Your task to perform on an android device: Search for flights from NYC to Sydney Image 0: 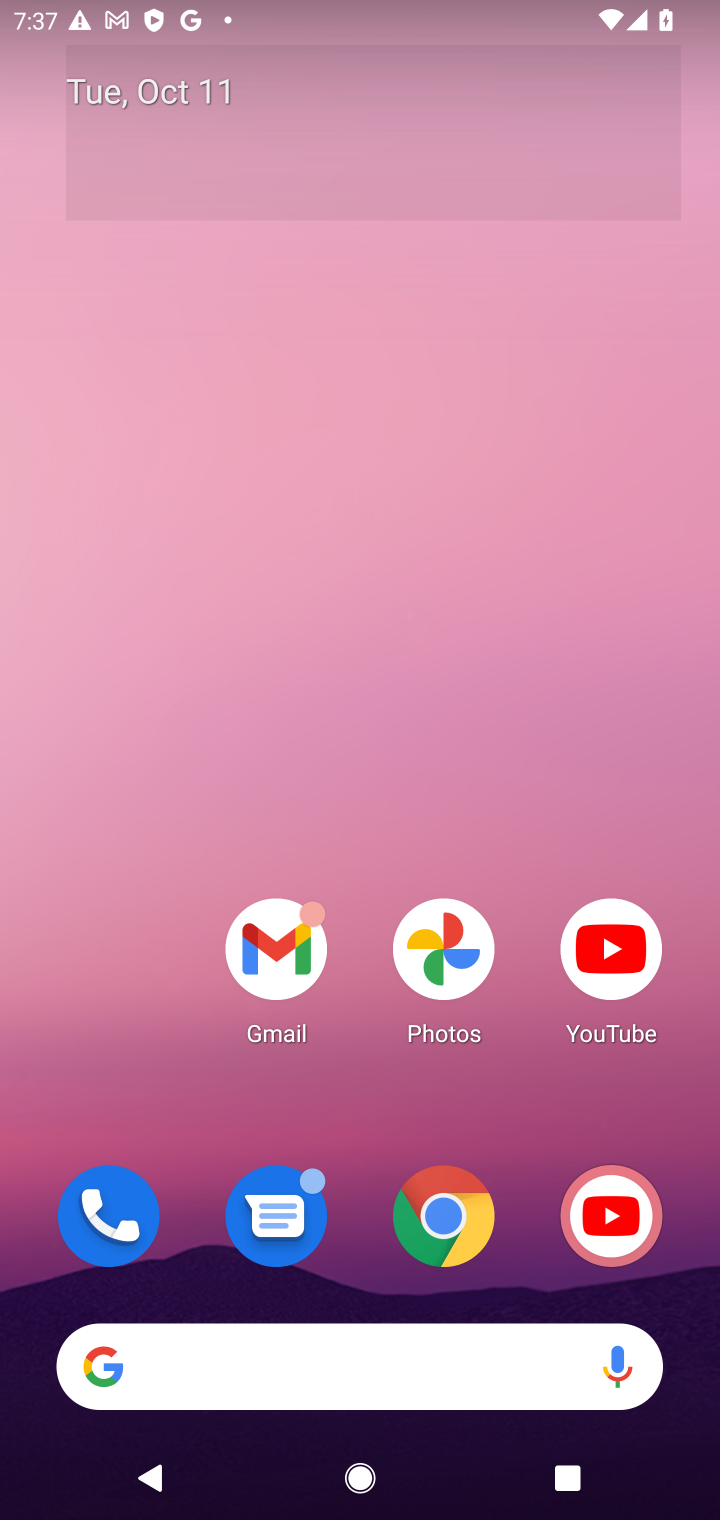
Step 0: click (439, 1239)
Your task to perform on an android device: Search for flights from NYC to Sydney Image 1: 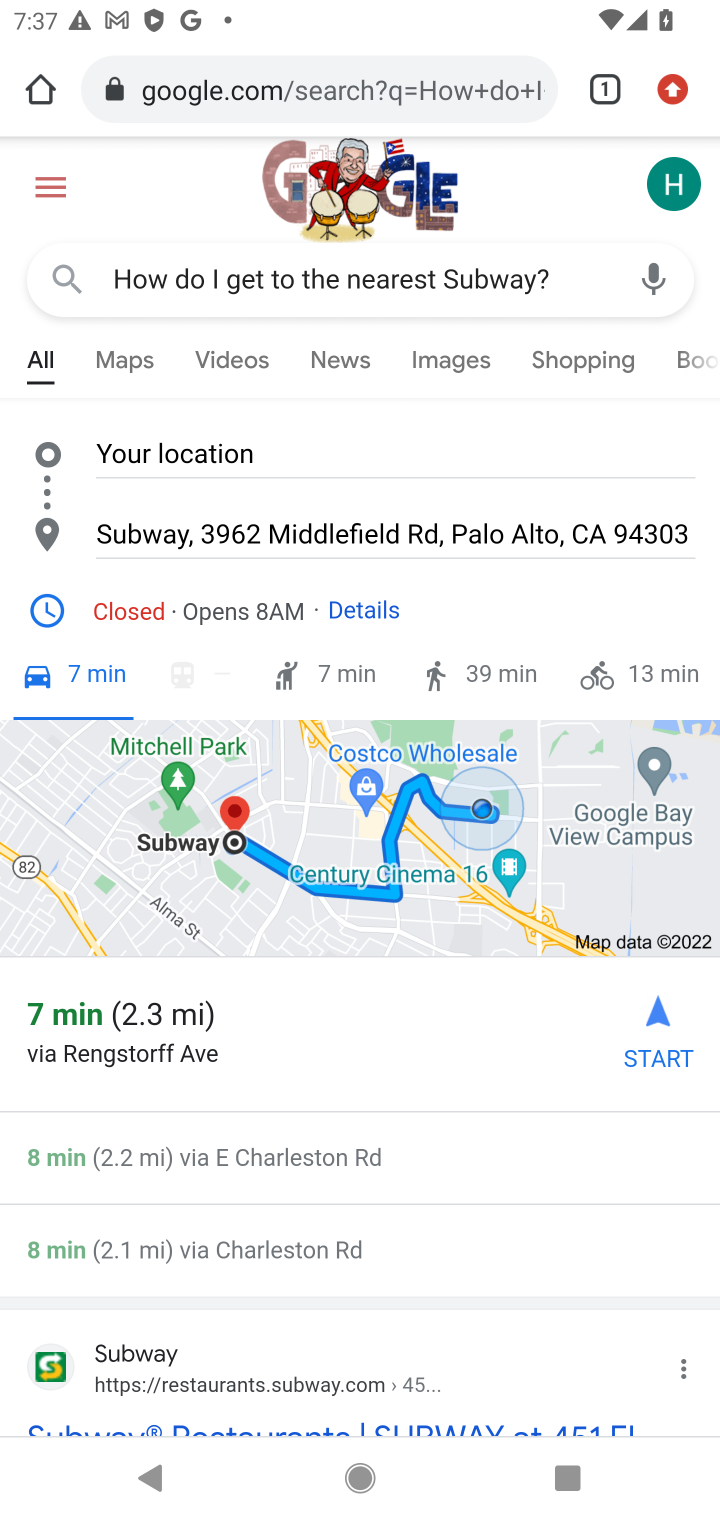
Step 1: click (551, 282)
Your task to perform on an android device: Search for flights from NYC to Sydney Image 2: 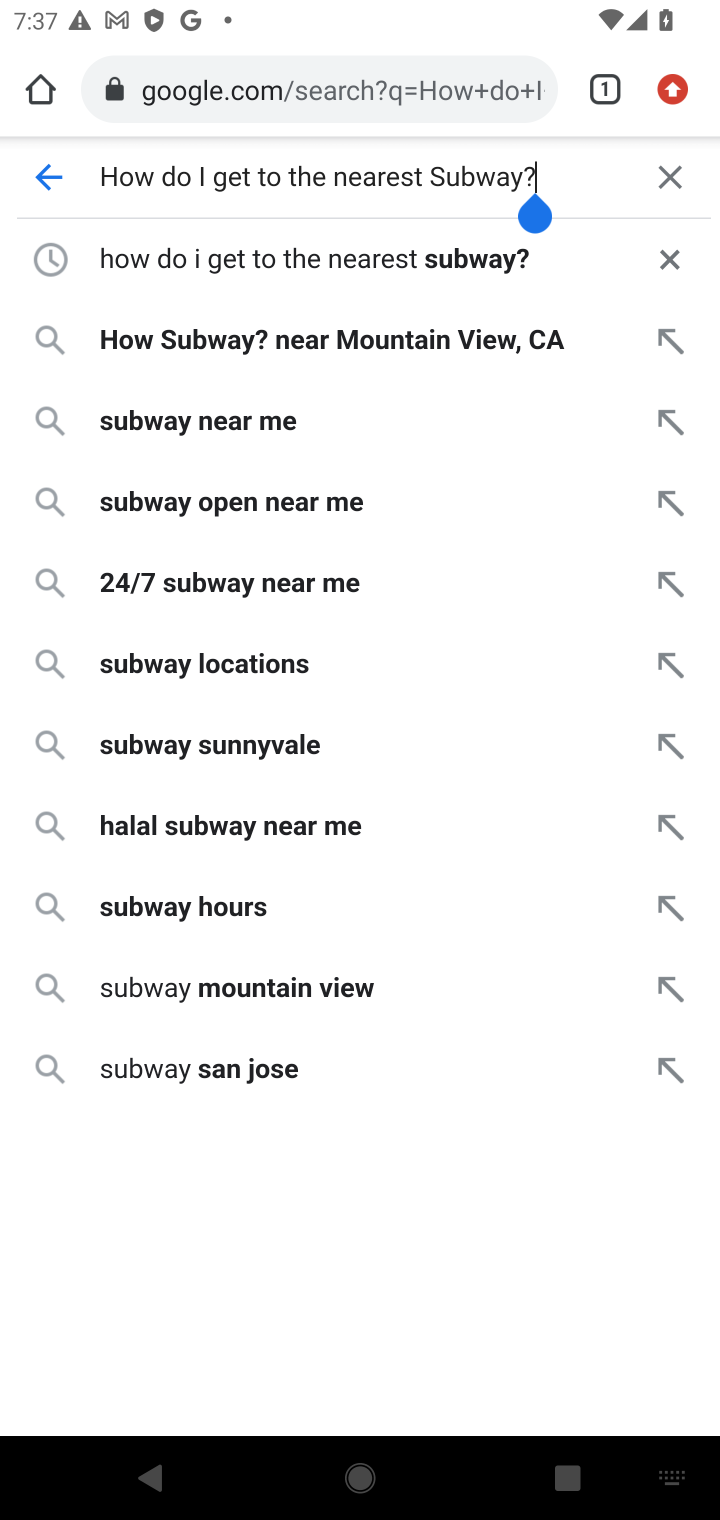
Step 2: click (657, 182)
Your task to perform on an android device: Search for flights from NYC to Sydney Image 3: 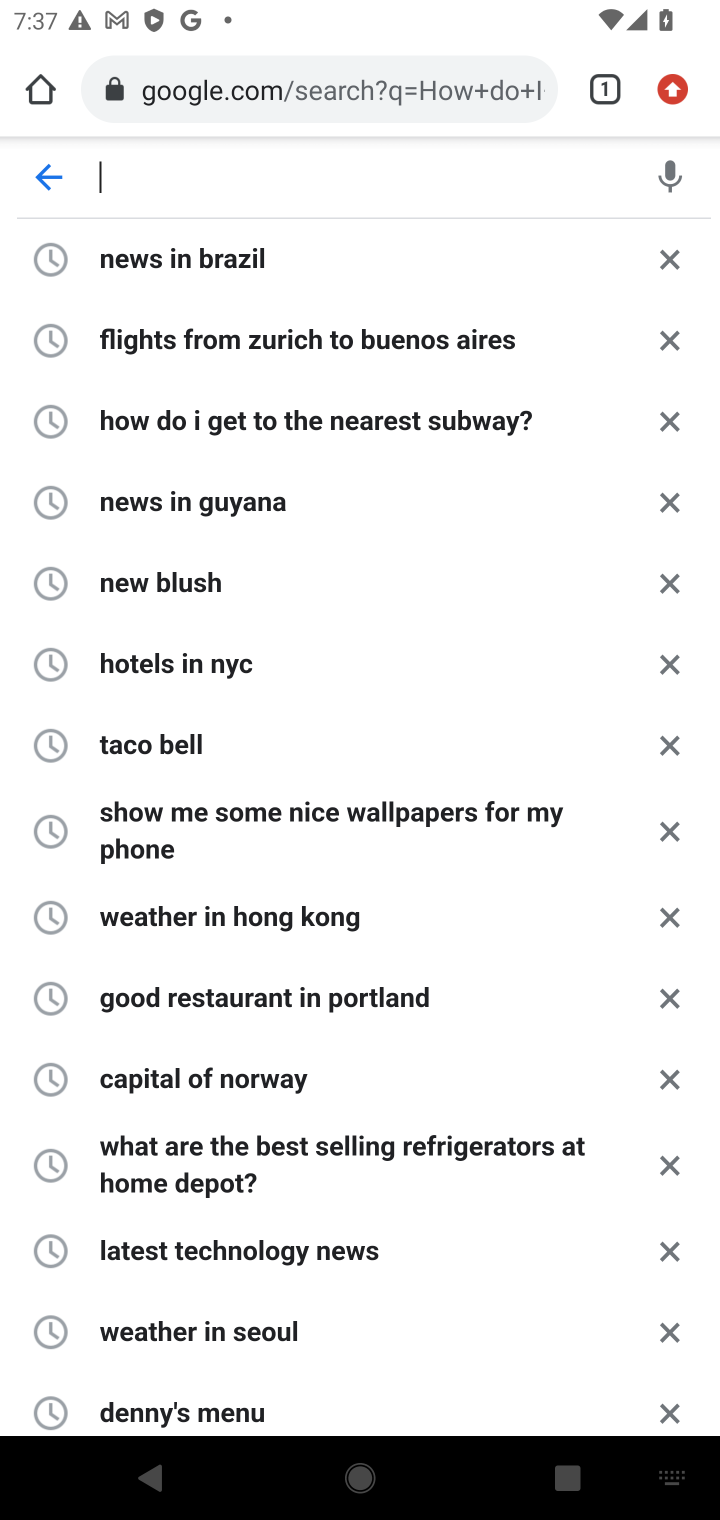
Step 3: type " flights from NYC to Sydney"
Your task to perform on an android device: Search for flights from NYC to Sydney Image 4: 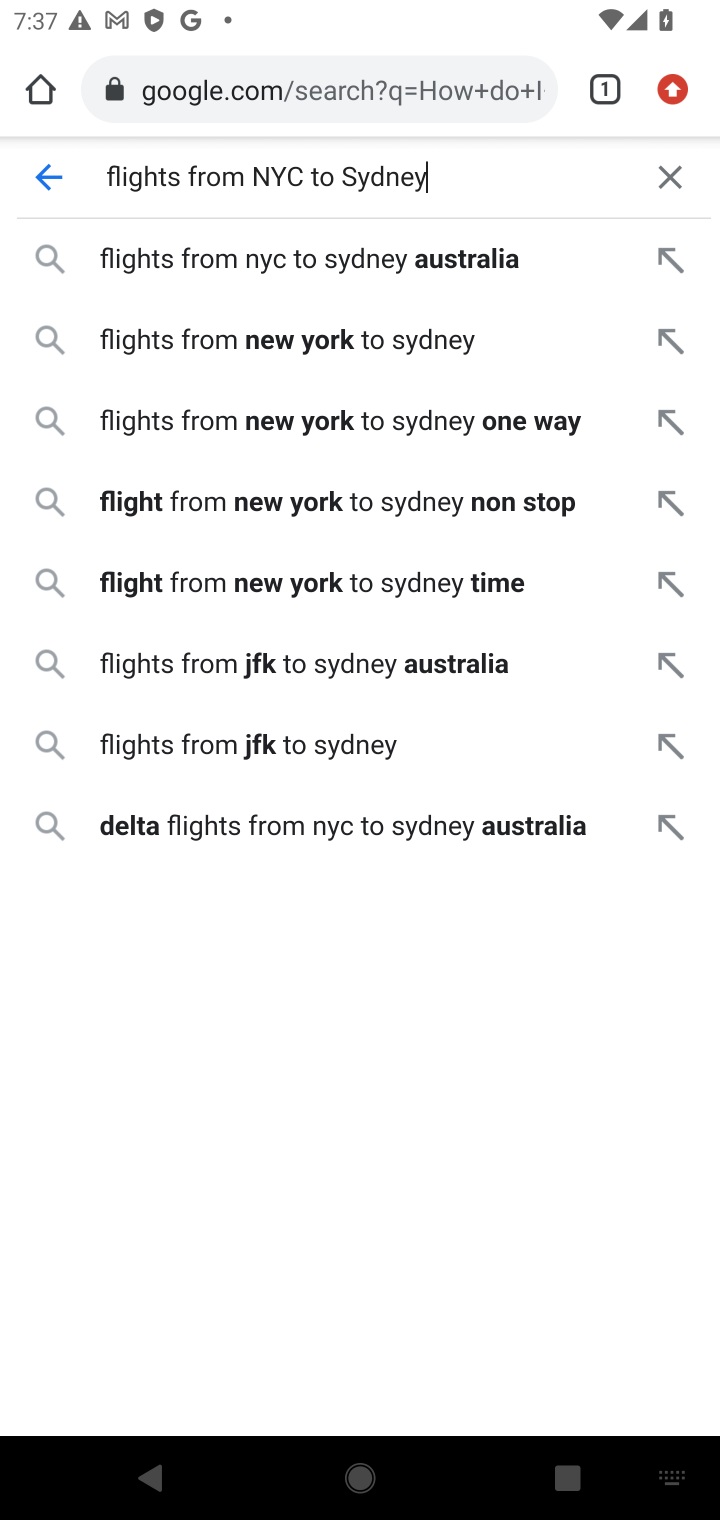
Step 4: press enter
Your task to perform on an android device: Search for flights from NYC to Sydney Image 5: 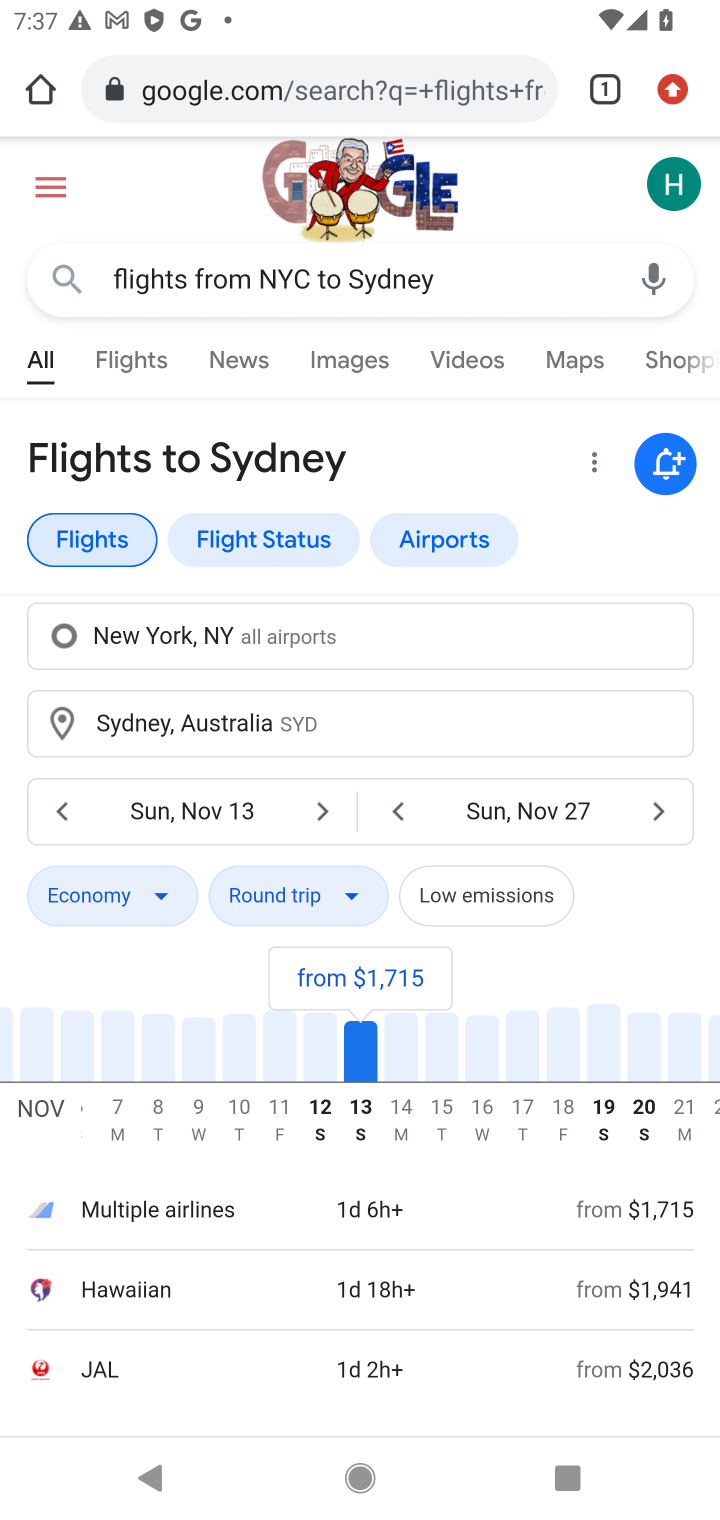
Step 5: task complete